Your task to perform on an android device: Turn off the flashlight Image 0: 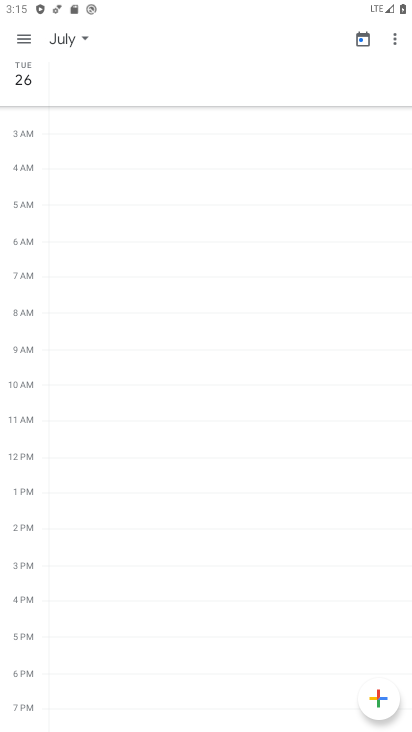
Step 0: drag from (378, 6) to (318, 520)
Your task to perform on an android device: Turn off the flashlight Image 1: 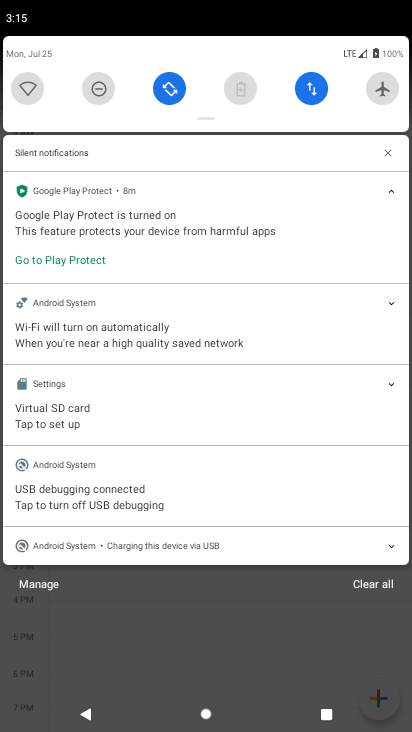
Step 1: drag from (205, 102) to (243, 553)
Your task to perform on an android device: Turn off the flashlight Image 2: 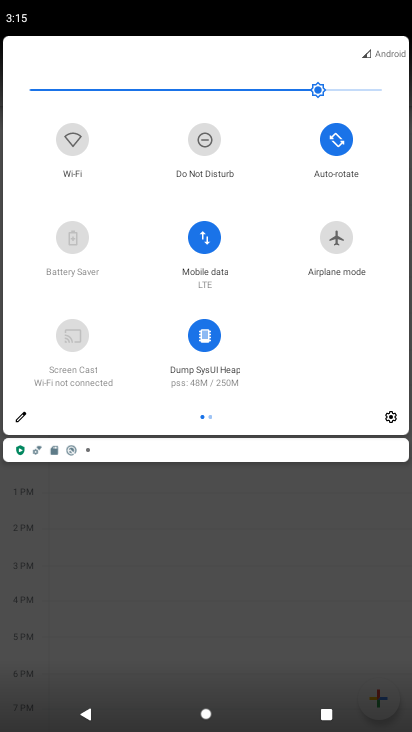
Step 2: click (27, 423)
Your task to perform on an android device: Turn off the flashlight Image 3: 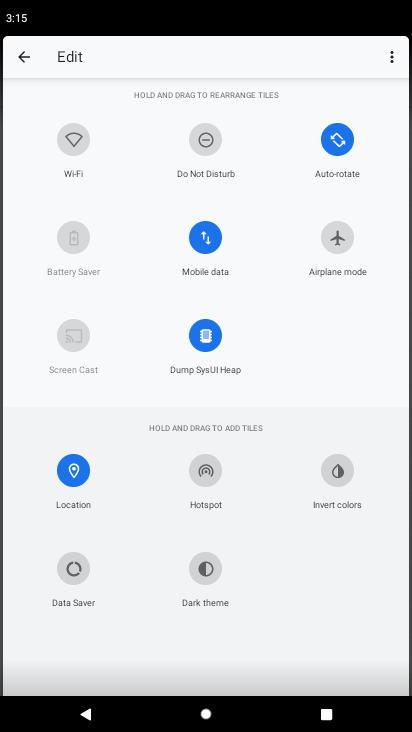
Step 3: task complete